Your task to perform on an android device: find which apps use the phone's location Image 0: 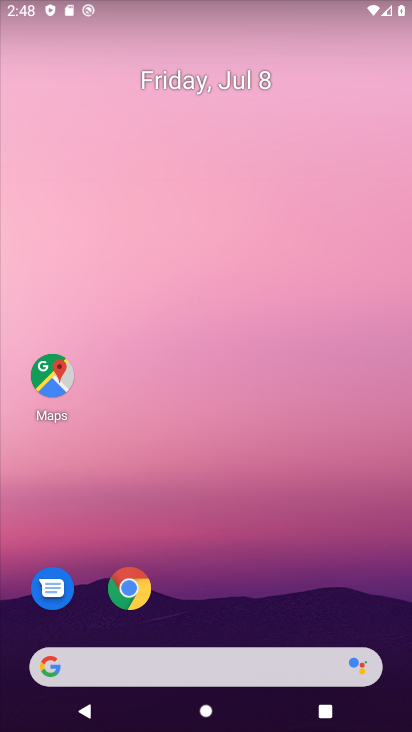
Step 0: drag from (191, 656) to (357, 86)
Your task to perform on an android device: find which apps use the phone's location Image 1: 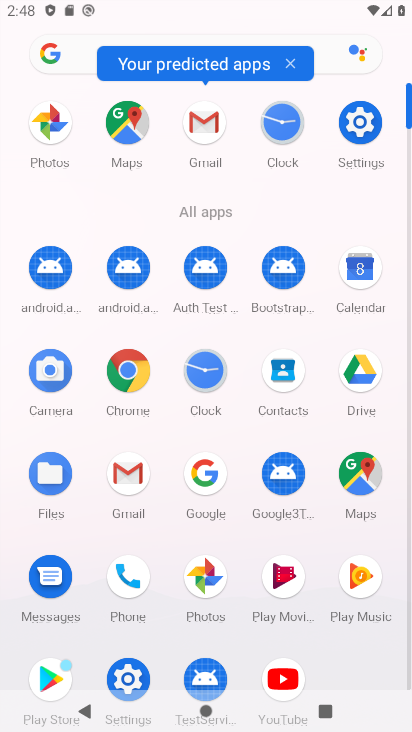
Step 1: click (356, 123)
Your task to perform on an android device: find which apps use the phone's location Image 2: 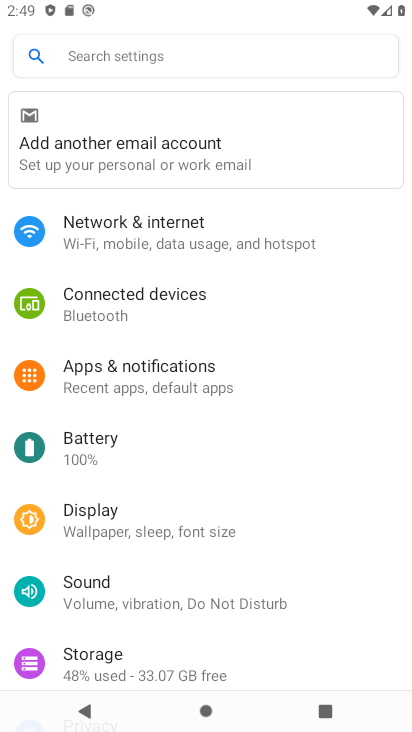
Step 2: drag from (217, 621) to (303, 216)
Your task to perform on an android device: find which apps use the phone's location Image 3: 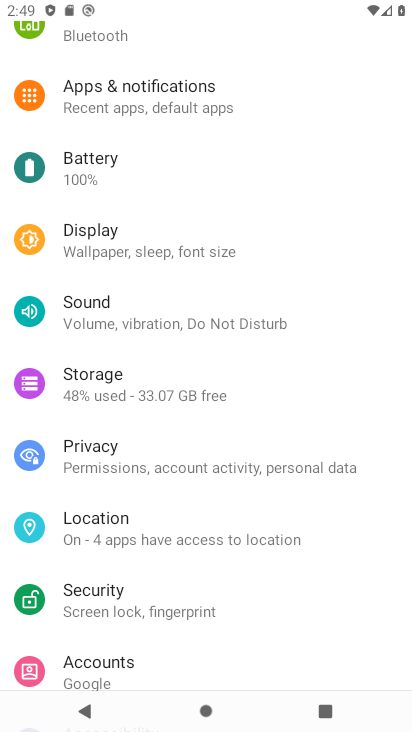
Step 3: click (118, 515)
Your task to perform on an android device: find which apps use the phone's location Image 4: 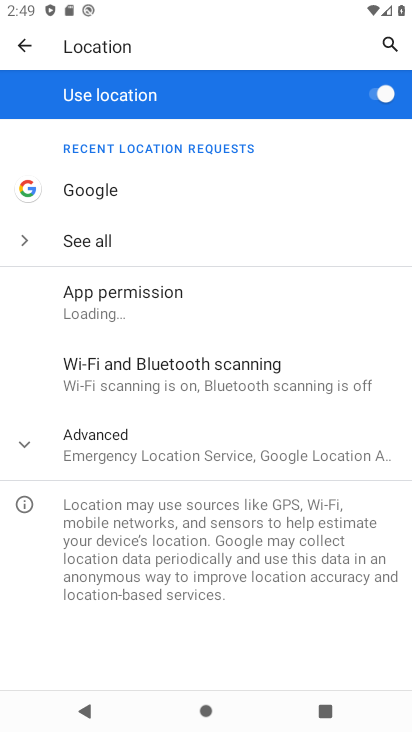
Step 4: click (120, 295)
Your task to perform on an android device: find which apps use the phone's location Image 5: 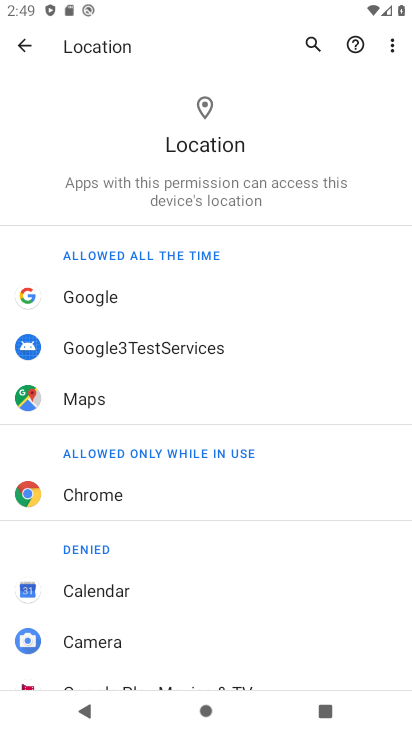
Step 5: drag from (170, 636) to (321, 171)
Your task to perform on an android device: find which apps use the phone's location Image 6: 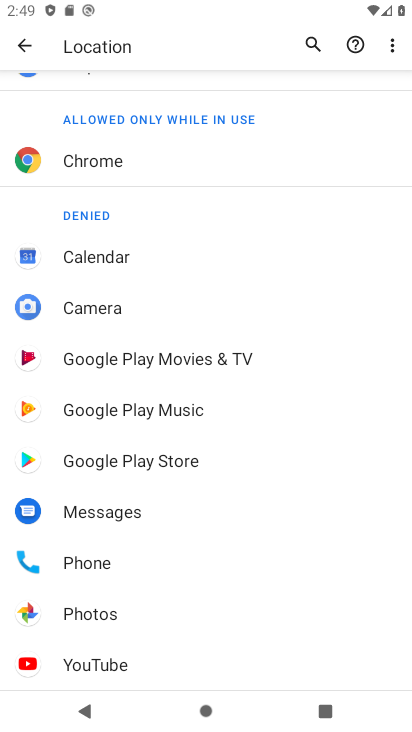
Step 6: click (71, 560)
Your task to perform on an android device: find which apps use the phone's location Image 7: 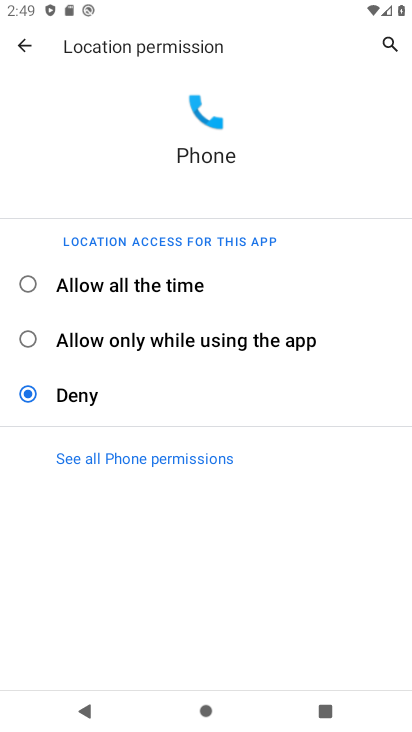
Step 7: task complete